Your task to perform on an android device: Go to calendar. Show me events next week Image 0: 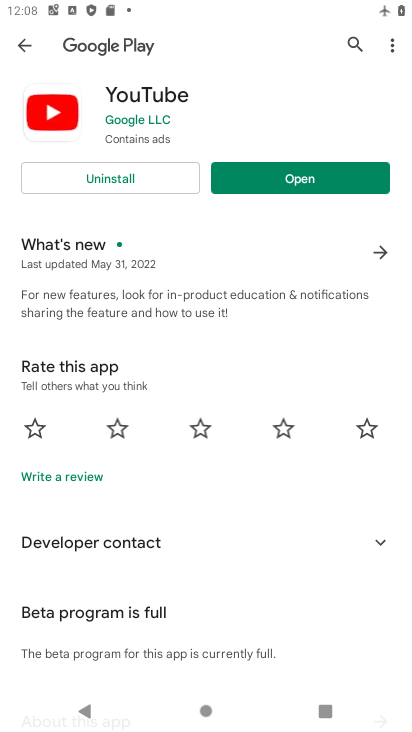
Step 0: press home button
Your task to perform on an android device: Go to calendar. Show me events next week Image 1: 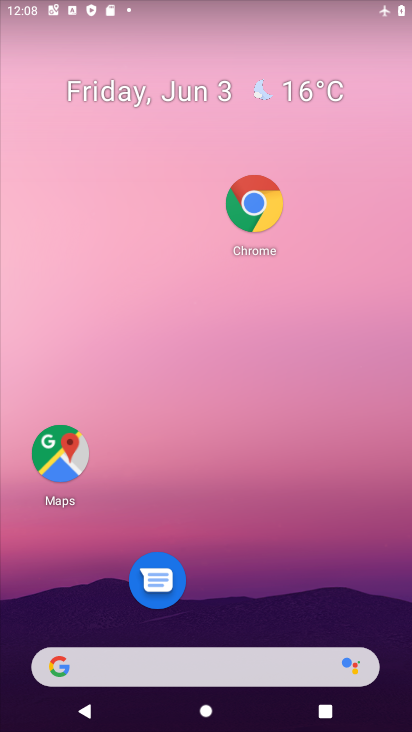
Step 1: drag from (290, 575) to (302, 88)
Your task to perform on an android device: Go to calendar. Show me events next week Image 2: 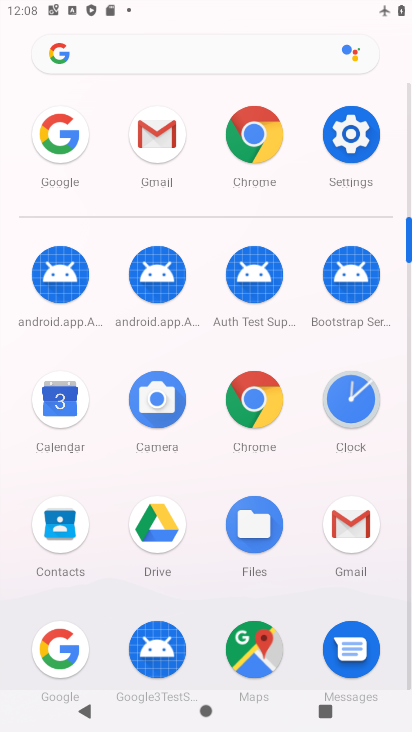
Step 2: click (74, 418)
Your task to perform on an android device: Go to calendar. Show me events next week Image 3: 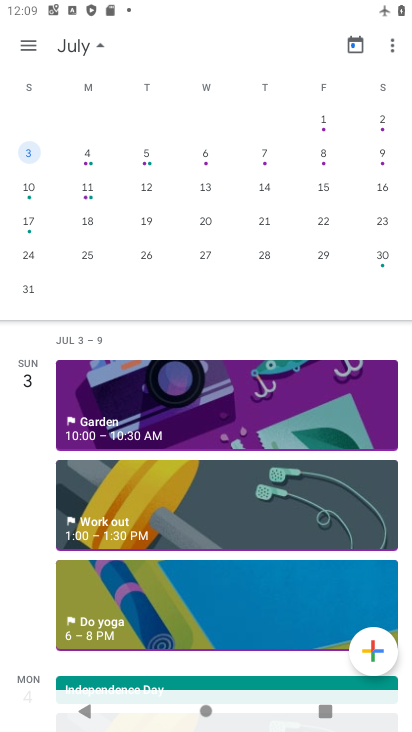
Step 3: drag from (36, 221) to (402, 281)
Your task to perform on an android device: Go to calendar. Show me events next week Image 4: 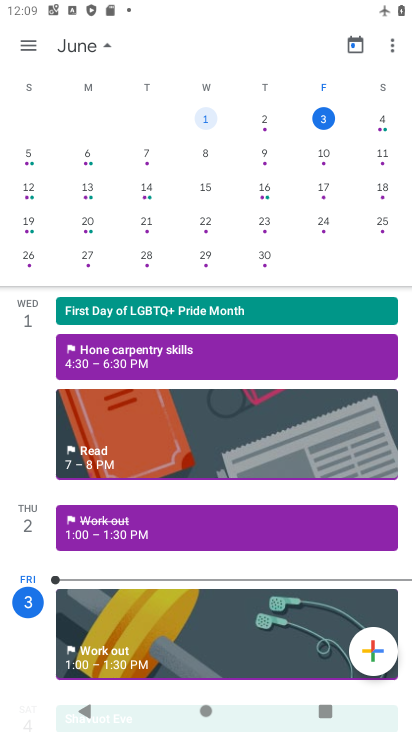
Step 4: click (34, 169)
Your task to perform on an android device: Go to calendar. Show me events next week Image 5: 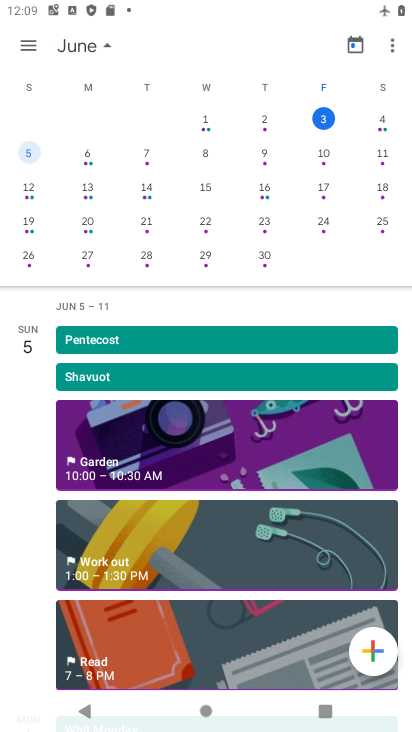
Step 5: task complete